Your task to perform on an android device: Open calendar and show me the fourth week of next month Image 0: 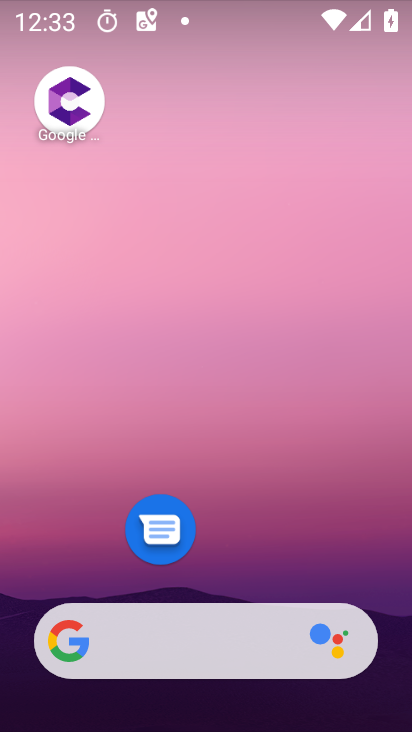
Step 0: drag from (213, 561) to (238, 58)
Your task to perform on an android device: Open calendar and show me the fourth week of next month Image 1: 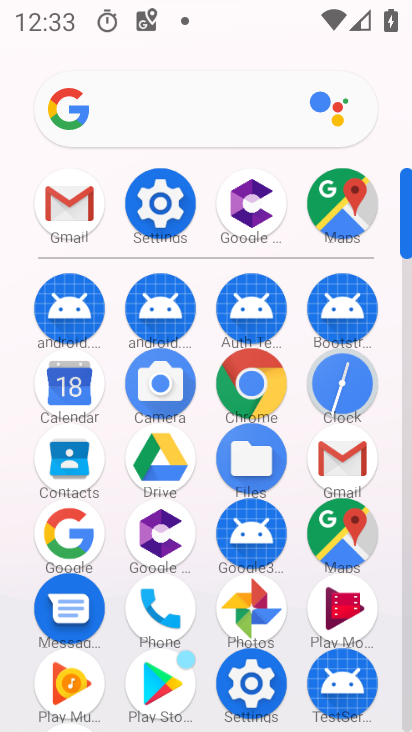
Step 1: click (54, 382)
Your task to perform on an android device: Open calendar and show me the fourth week of next month Image 2: 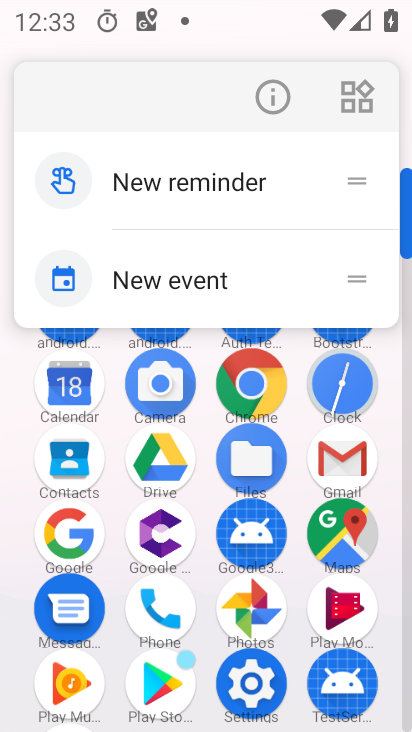
Step 2: click (70, 339)
Your task to perform on an android device: Open calendar and show me the fourth week of next month Image 3: 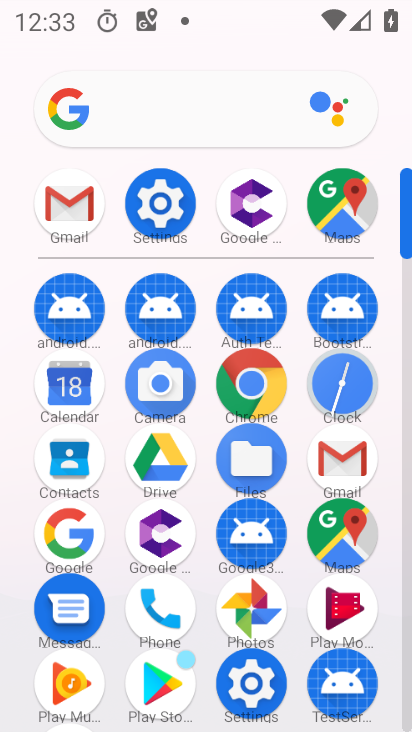
Step 3: click (57, 389)
Your task to perform on an android device: Open calendar and show me the fourth week of next month Image 4: 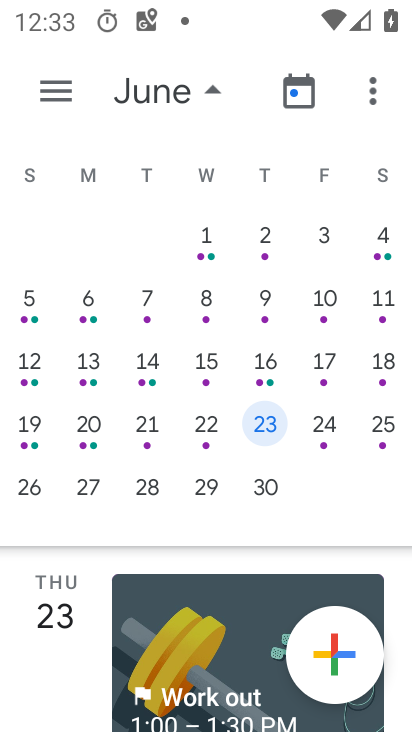
Step 4: task complete